Your task to perform on an android device: turn notification dots off Image 0: 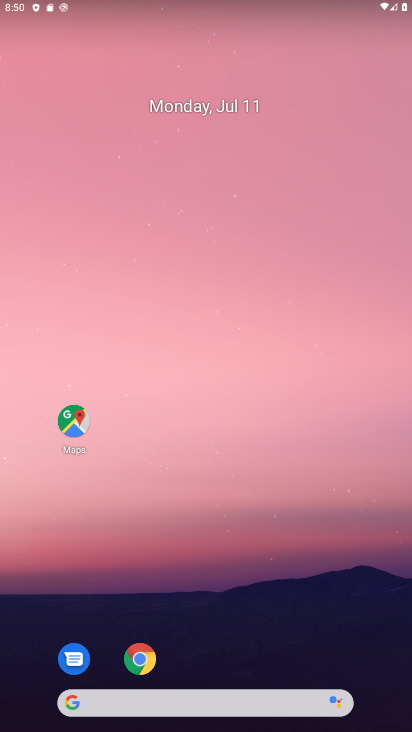
Step 0: drag from (195, 704) to (138, 0)
Your task to perform on an android device: turn notification dots off Image 1: 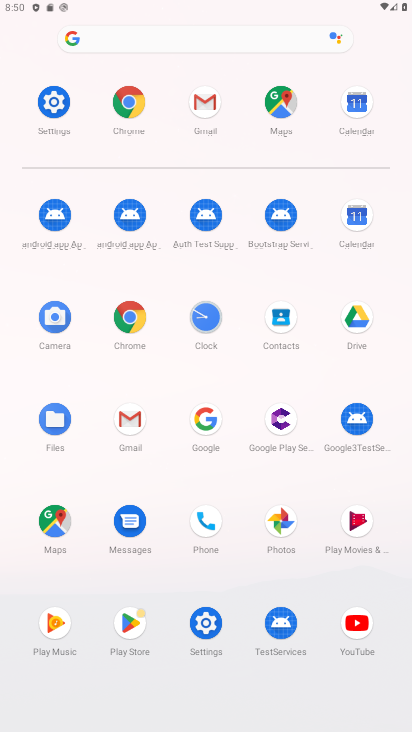
Step 1: click (54, 108)
Your task to perform on an android device: turn notification dots off Image 2: 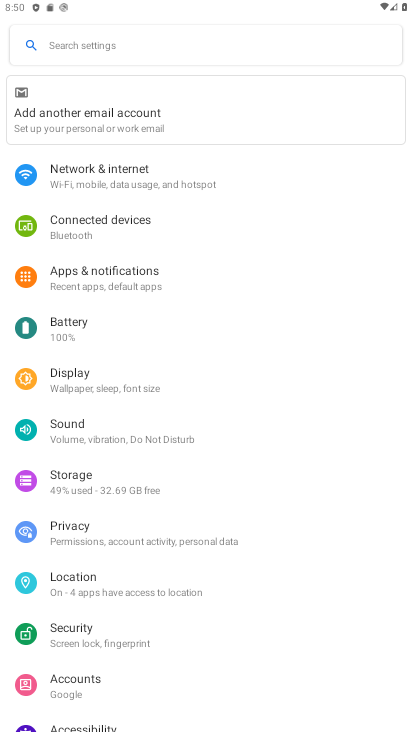
Step 2: click (119, 278)
Your task to perform on an android device: turn notification dots off Image 3: 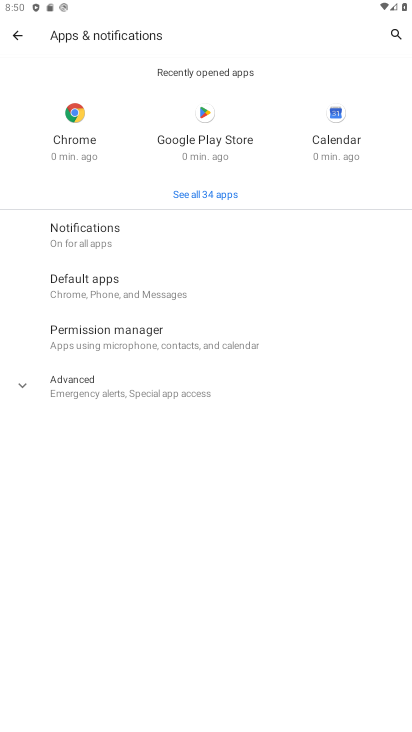
Step 3: click (20, 34)
Your task to perform on an android device: turn notification dots off Image 4: 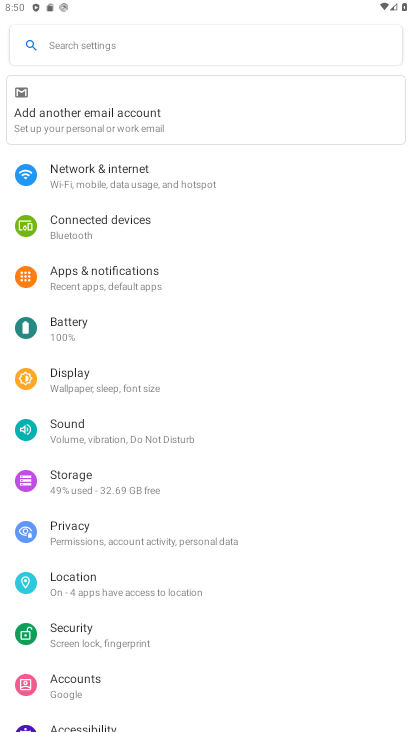
Step 4: click (99, 281)
Your task to perform on an android device: turn notification dots off Image 5: 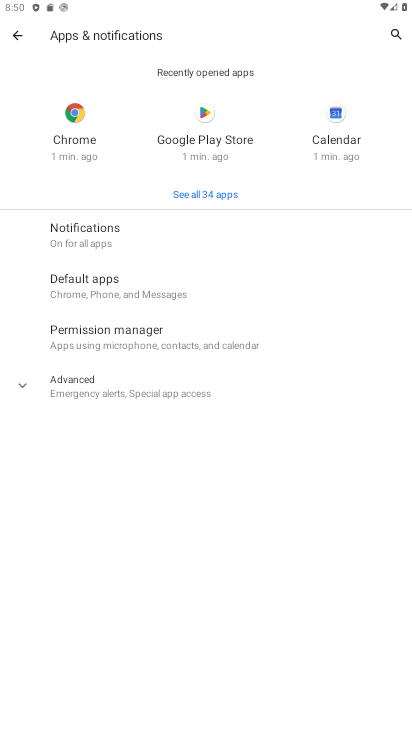
Step 5: click (80, 232)
Your task to perform on an android device: turn notification dots off Image 6: 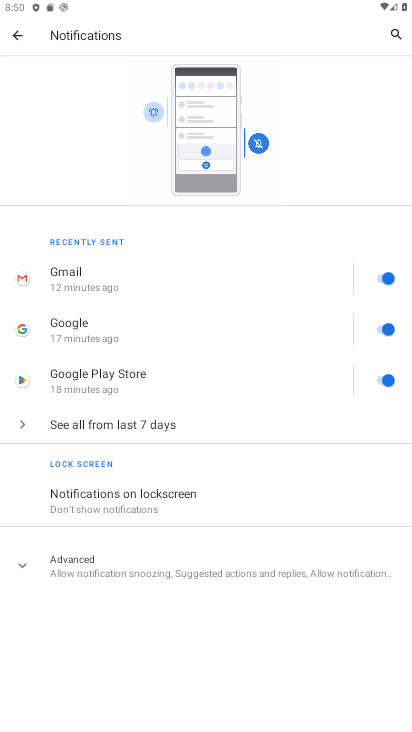
Step 6: click (103, 562)
Your task to perform on an android device: turn notification dots off Image 7: 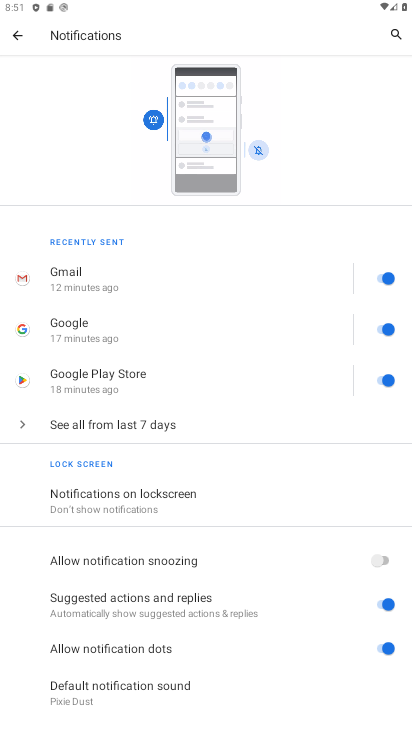
Step 7: click (387, 647)
Your task to perform on an android device: turn notification dots off Image 8: 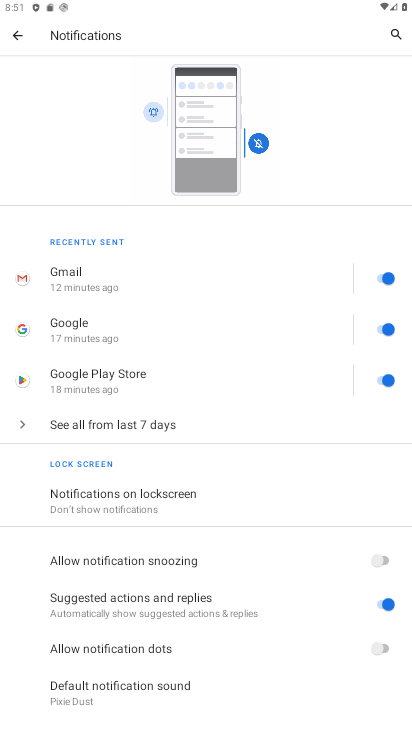
Step 8: task complete